Your task to perform on an android device: Go to Reddit.com Image 0: 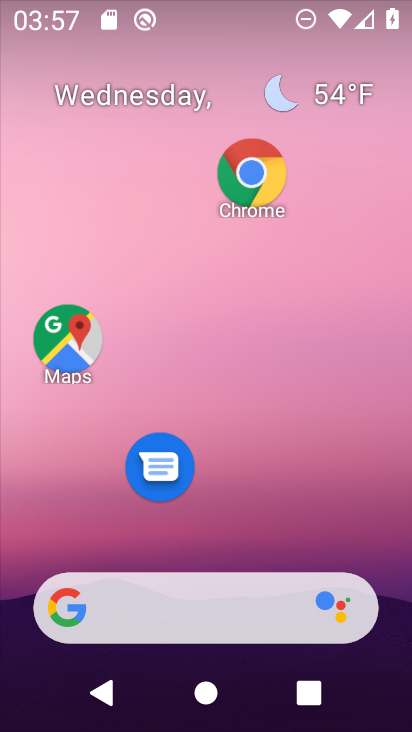
Step 0: click (252, 183)
Your task to perform on an android device: Go to Reddit.com Image 1: 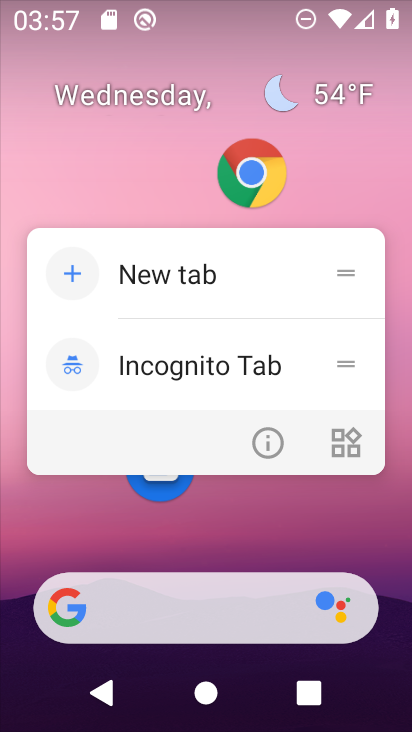
Step 1: click (247, 173)
Your task to perform on an android device: Go to Reddit.com Image 2: 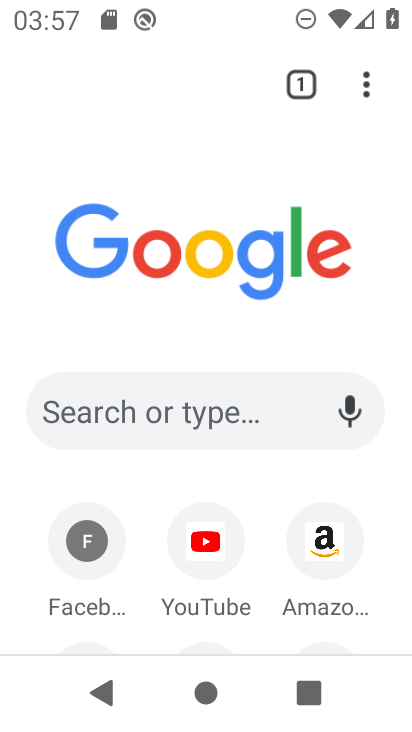
Step 2: click (173, 422)
Your task to perform on an android device: Go to Reddit.com Image 3: 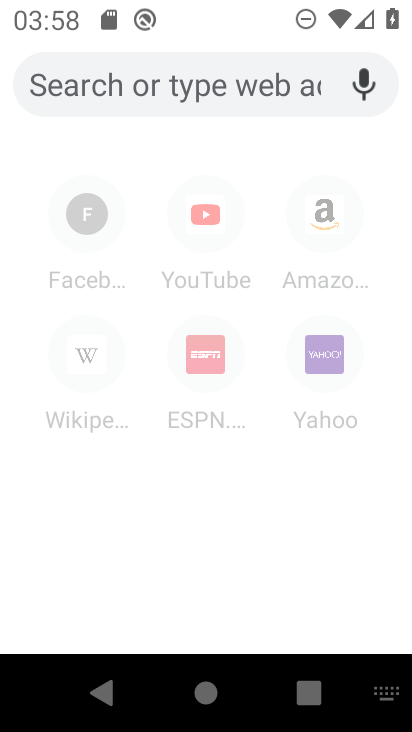
Step 3: click (140, 89)
Your task to perform on an android device: Go to Reddit.com Image 4: 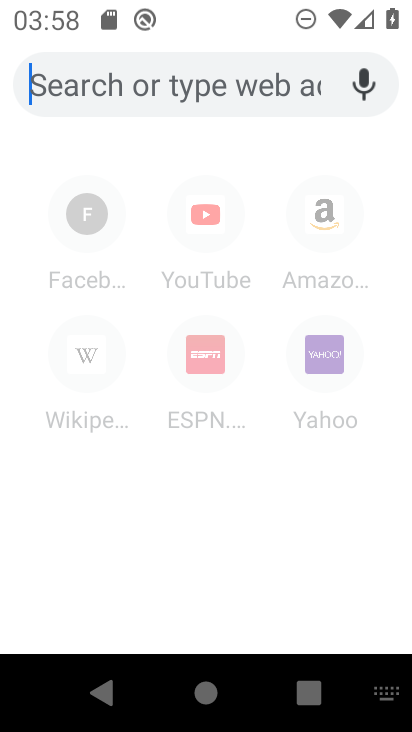
Step 4: type "reddit.com"
Your task to perform on an android device: Go to Reddit.com Image 5: 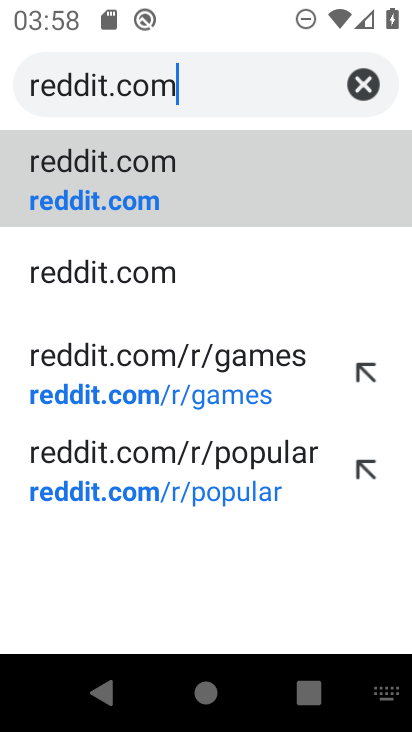
Step 5: click (226, 184)
Your task to perform on an android device: Go to Reddit.com Image 6: 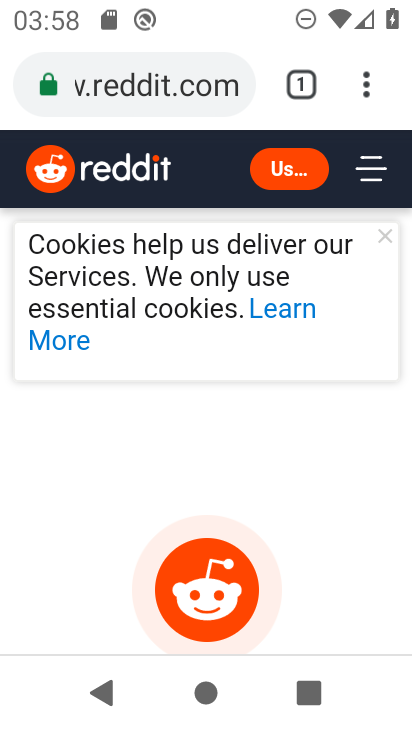
Step 6: task complete